Your task to perform on an android device: change the upload size in google photos Image 0: 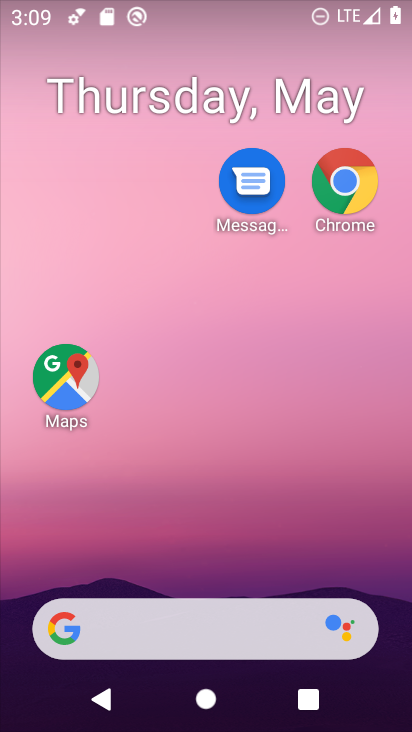
Step 0: drag from (259, 623) to (227, 3)
Your task to perform on an android device: change the upload size in google photos Image 1: 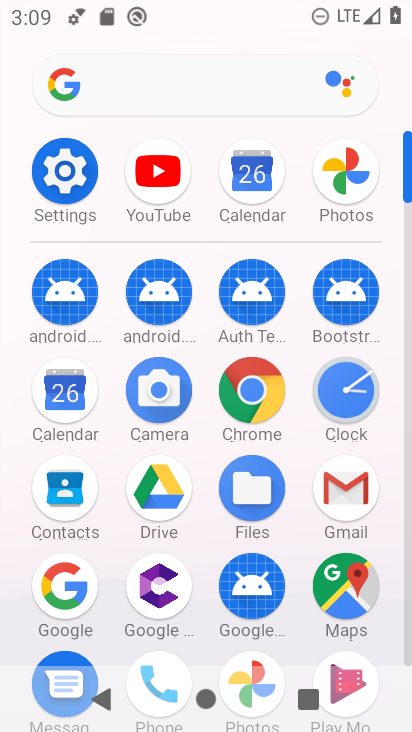
Step 1: drag from (284, 648) to (307, 458)
Your task to perform on an android device: change the upload size in google photos Image 2: 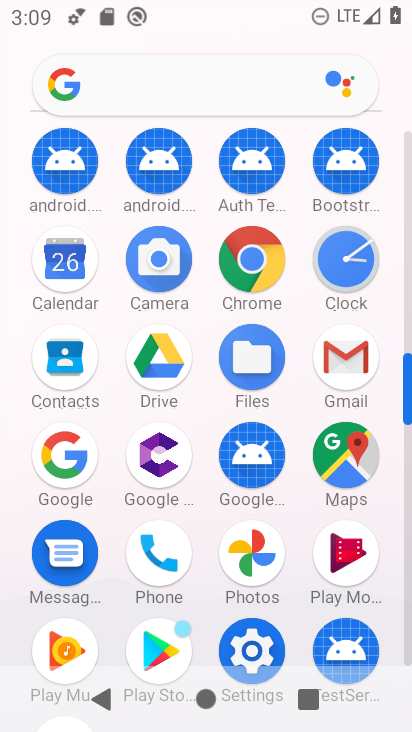
Step 2: click (269, 551)
Your task to perform on an android device: change the upload size in google photos Image 3: 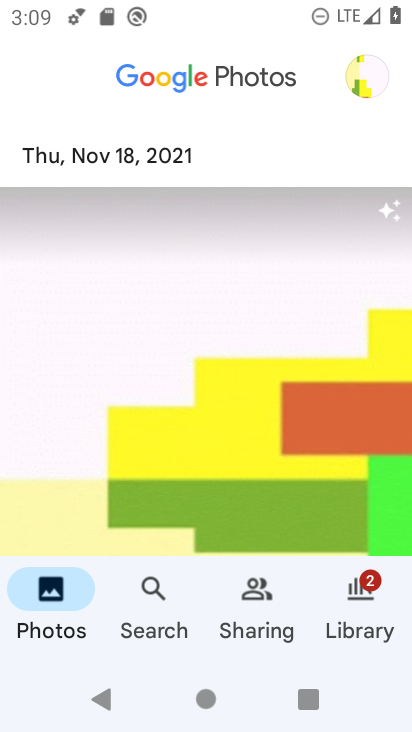
Step 3: click (362, 71)
Your task to perform on an android device: change the upload size in google photos Image 4: 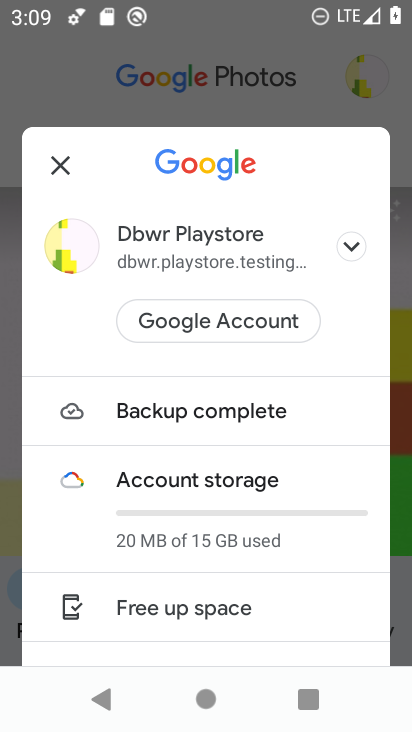
Step 4: drag from (256, 628) to (258, 324)
Your task to perform on an android device: change the upload size in google photos Image 5: 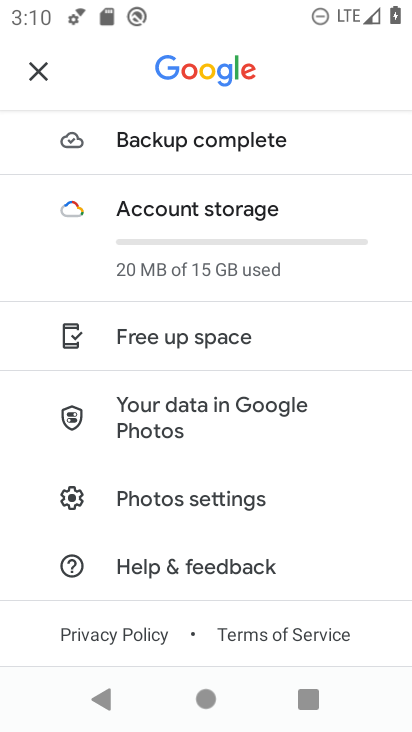
Step 5: click (207, 507)
Your task to perform on an android device: change the upload size in google photos Image 6: 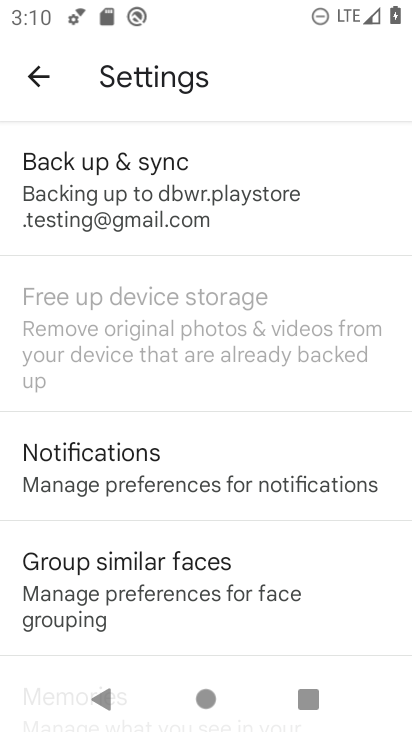
Step 6: click (266, 176)
Your task to perform on an android device: change the upload size in google photos Image 7: 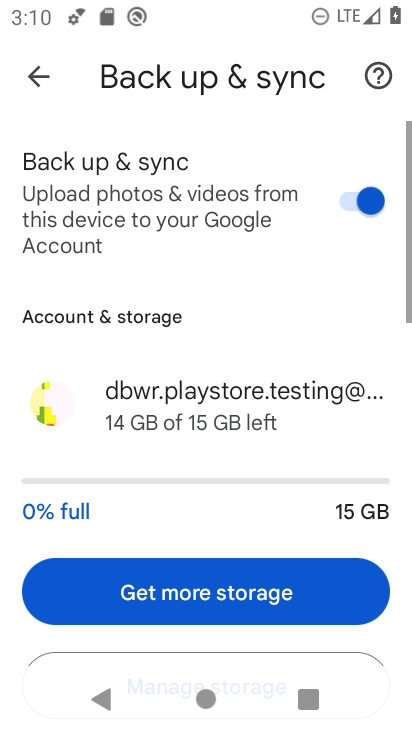
Step 7: drag from (240, 543) to (278, 148)
Your task to perform on an android device: change the upload size in google photos Image 8: 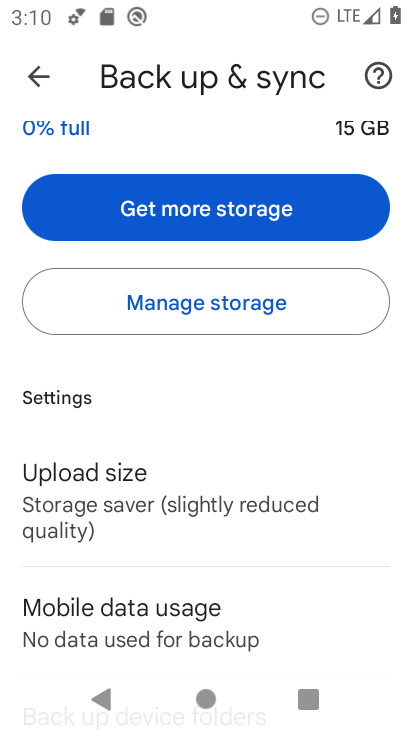
Step 8: click (271, 456)
Your task to perform on an android device: change the upload size in google photos Image 9: 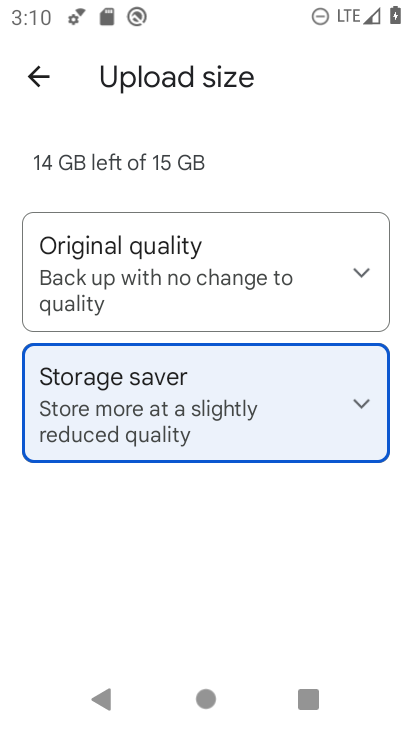
Step 9: task complete